Your task to perform on an android device: Show me popular games on the Play Store Image 0: 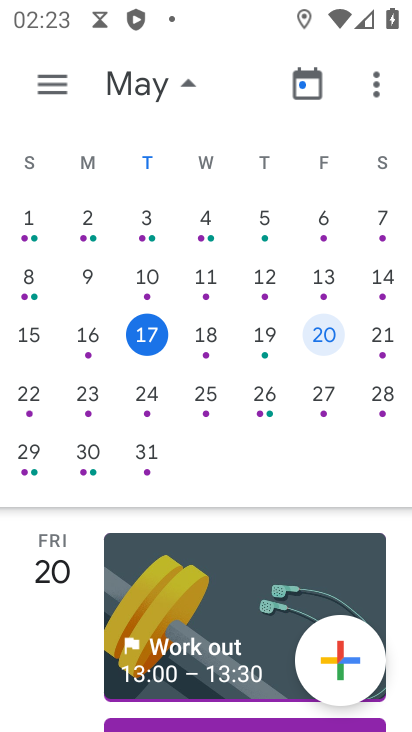
Step 0: press home button
Your task to perform on an android device: Show me popular games on the Play Store Image 1: 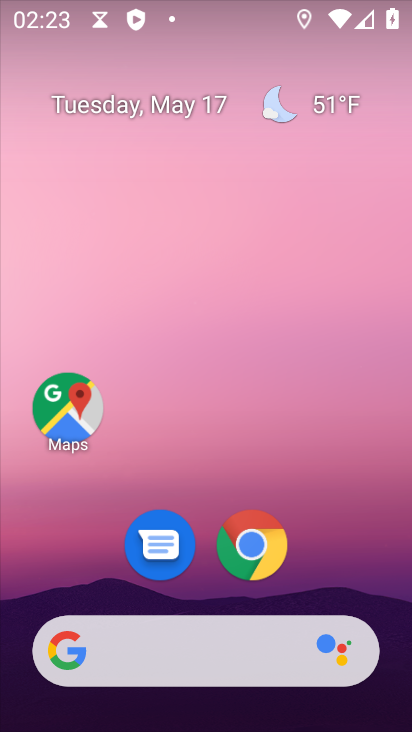
Step 1: drag from (198, 588) to (246, 79)
Your task to perform on an android device: Show me popular games on the Play Store Image 2: 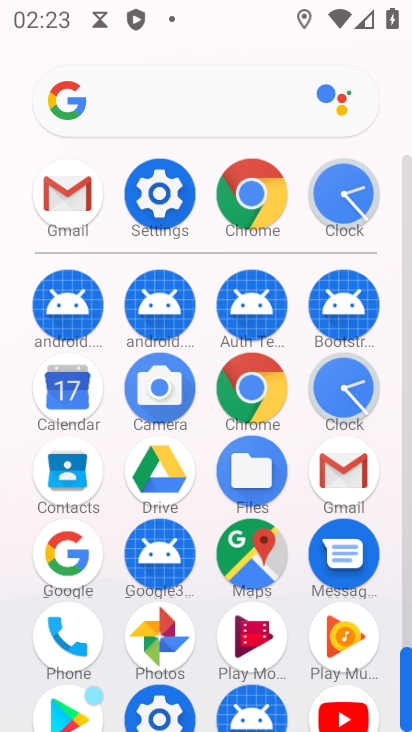
Step 2: click (79, 712)
Your task to perform on an android device: Show me popular games on the Play Store Image 3: 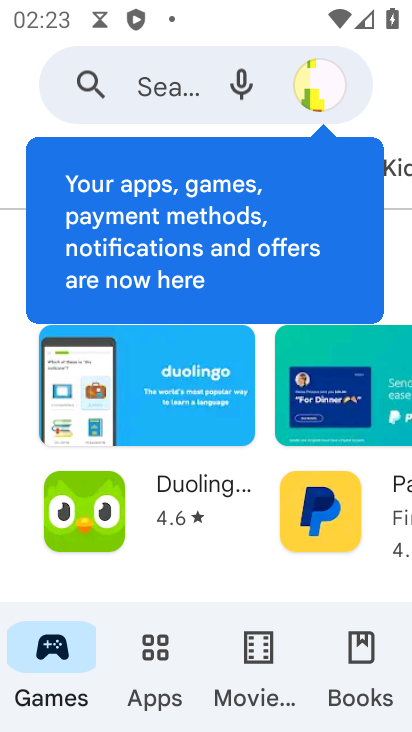
Step 3: click (378, 120)
Your task to perform on an android device: Show me popular games on the Play Store Image 4: 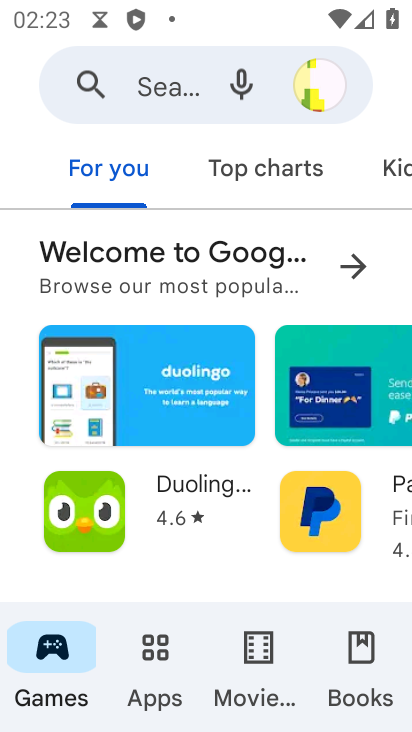
Step 4: click (287, 169)
Your task to perform on an android device: Show me popular games on the Play Store Image 5: 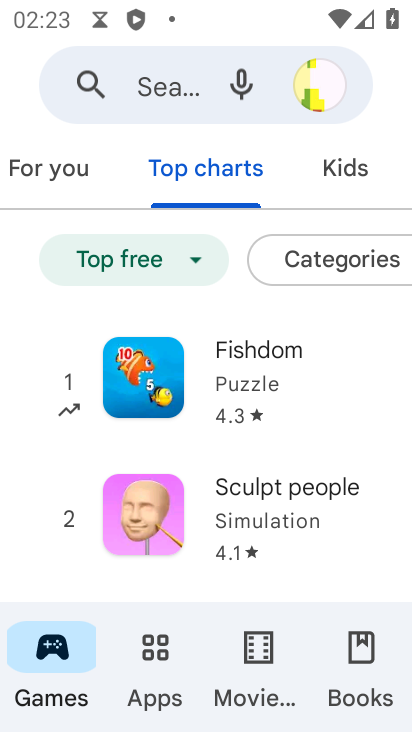
Step 5: task complete